Your task to perform on an android device: turn on data saver in the chrome app Image 0: 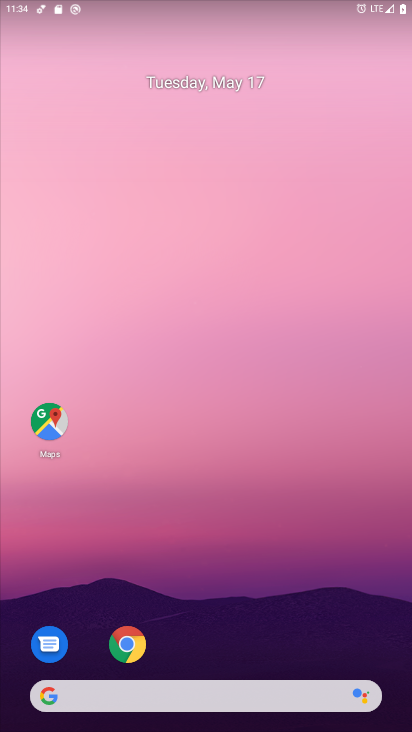
Step 0: click (127, 639)
Your task to perform on an android device: turn on data saver in the chrome app Image 1: 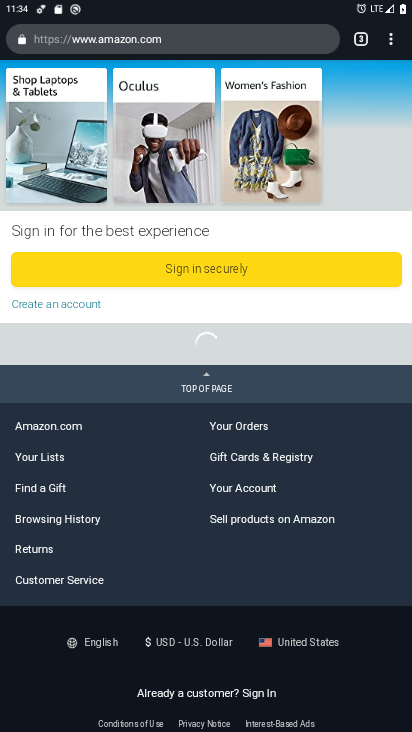
Step 1: click (388, 36)
Your task to perform on an android device: turn on data saver in the chrome app Image 2: 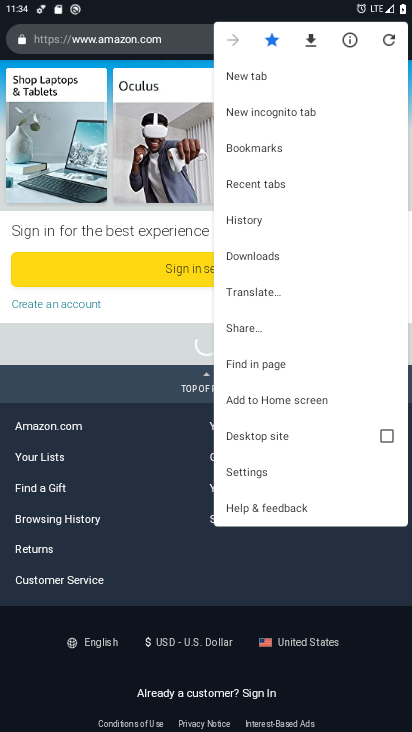
Step 2: click (270, 471)
Your task to perform on an android device: turn on data saver in the chrome app Image 3: 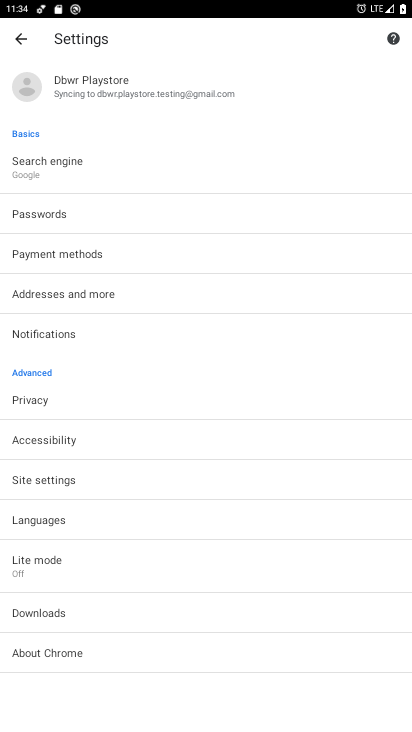
Step 3: click (58, 569)
Your task to perform on an android device: turn on data saver in the chrome app Image 4: 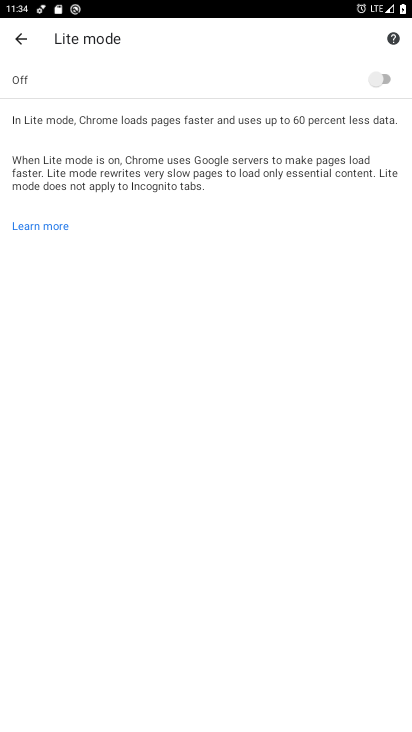
Step 4: click (376, 73)
Your task to perform on an android device: turn on data saver in the chrome app Image 5: 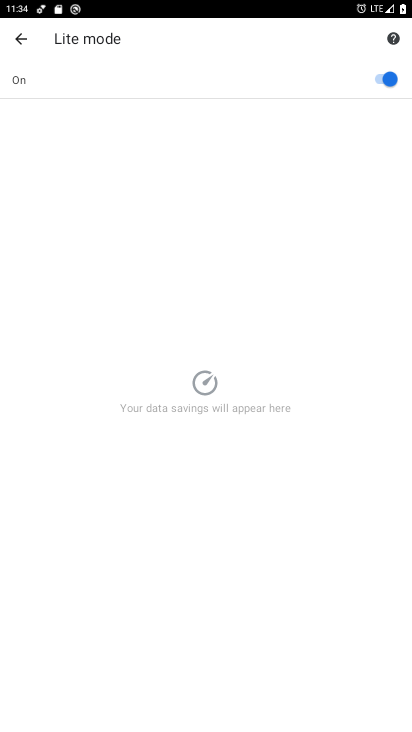
Step 5: task complete